Your task to perform on an android device: Open accessibility settings Image 0: 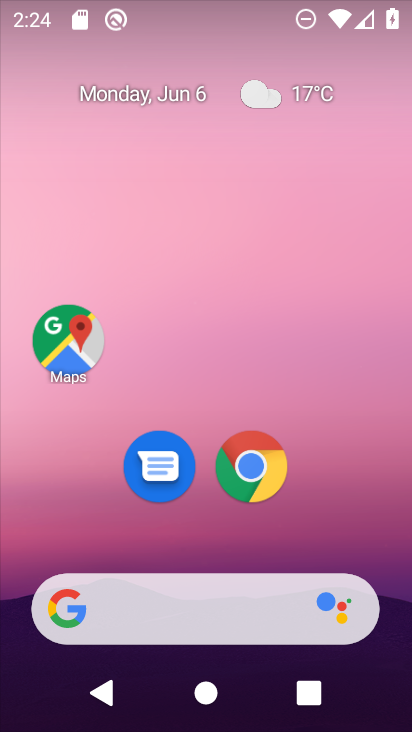
Step 0: drag from (170, 532) to (178, 85)
Your task to perform on an android device: Open accessibility settings Image 1: 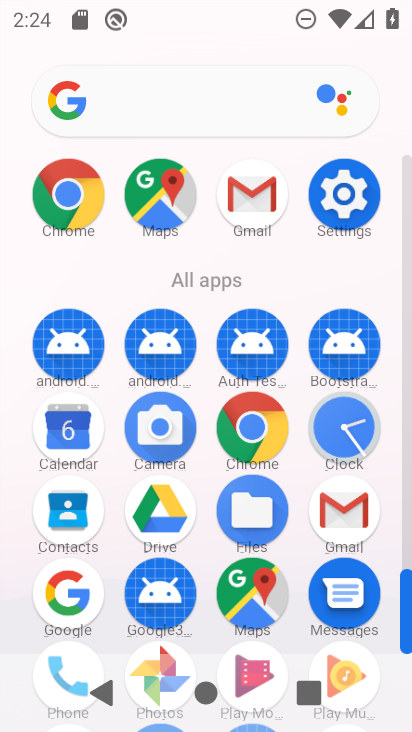
Step 1: click (355, 212)
Your task to perform on an android device: Open accessibility settings Image 2: 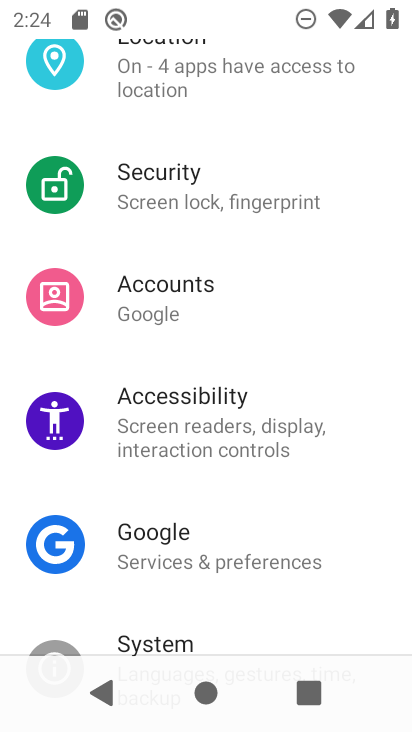
Step 2: click (190, 454)
Your task to perform on an android device: Open accessibility settings Image 3: 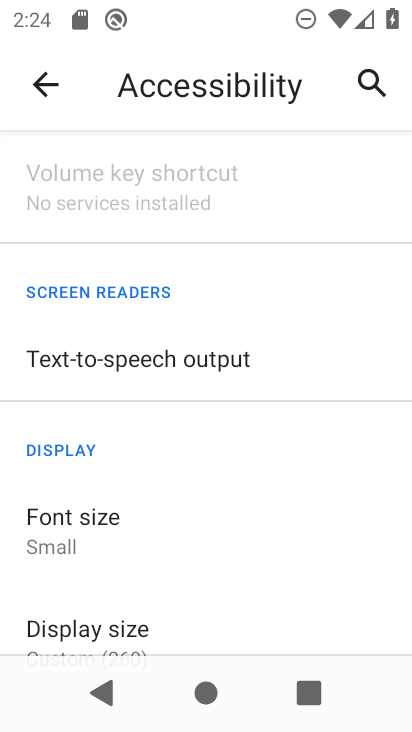
Step 3: task complete